Your task to perform on an android device: Search for Mexican restaurants on Maps Image 0: 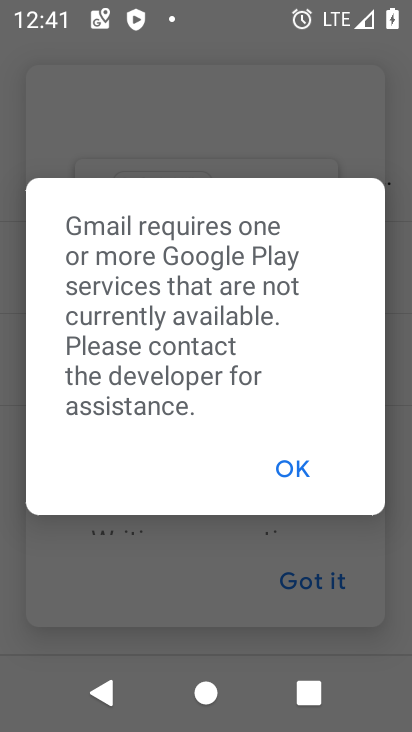
Step 0: press home button
Your task to perform on an android device: Search for Mexican restaurants on Maps Image 1: 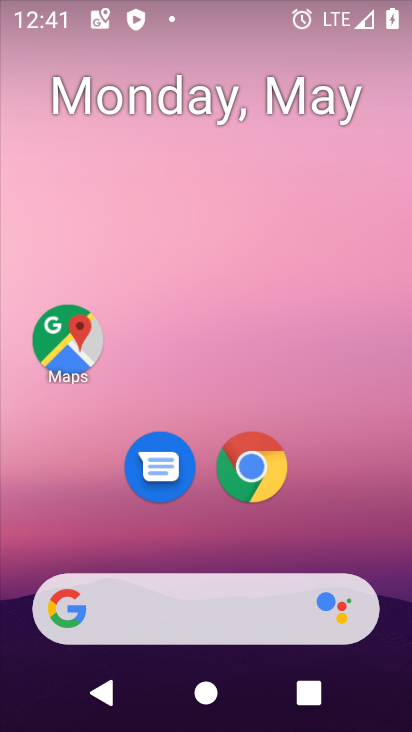
Step 1: click (66, 346)
Your task to perform on an android device: Search for Mexican restaurants on Maps Image 2: 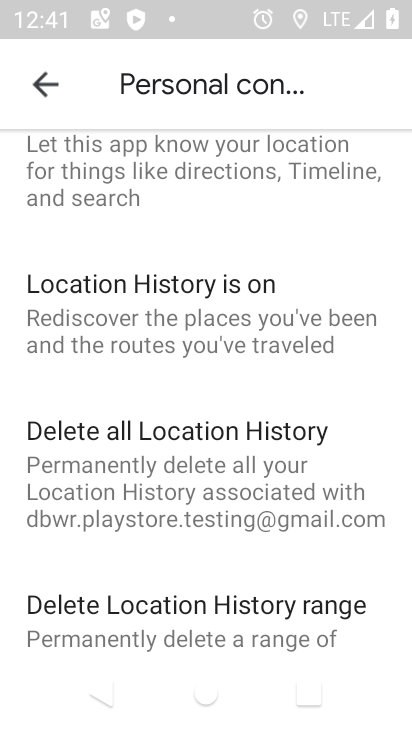
Step 2: click (37, 86)
Your task to perform on an android device: Search for Mexican restaurants on Maps Image 3: 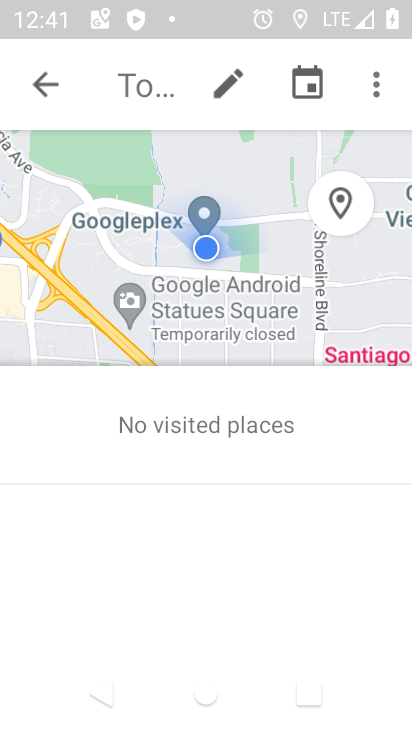
Step 3: click (62, 83)
Your task to perform on an android device: Search for Mexican restaurants on Maps Image 4: 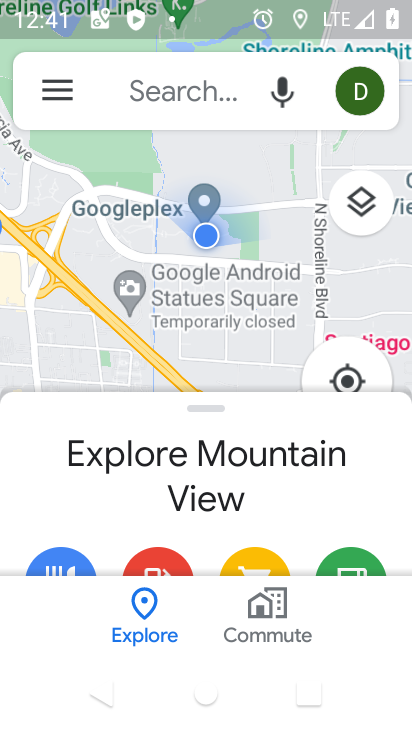
Step 4: click (134, 84)
Your task to perform on an android device: Search for Mexican restaurants on Maps Image 5: 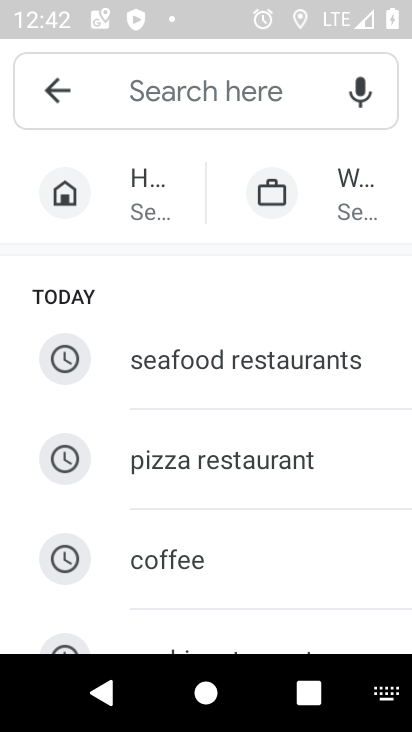
Step 5: type "mexican restaurant "
Your task to perform on an android device: Search for Mexican restaurants on Maps Image 6: 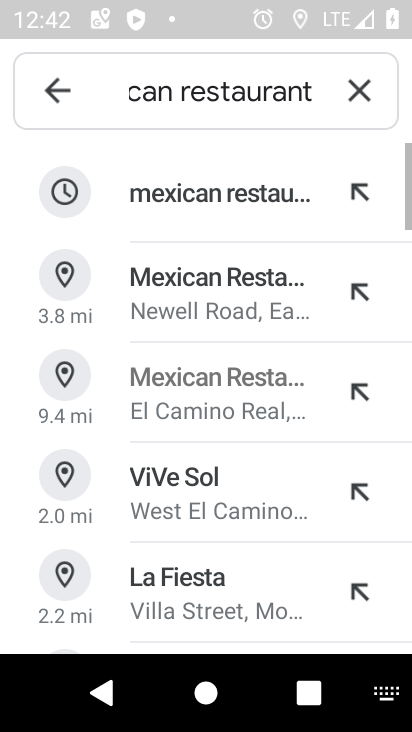
Step 6: click (166, 198)
Your task to perform on an android device: Search for Mexican restaurants on Maps Image 7: 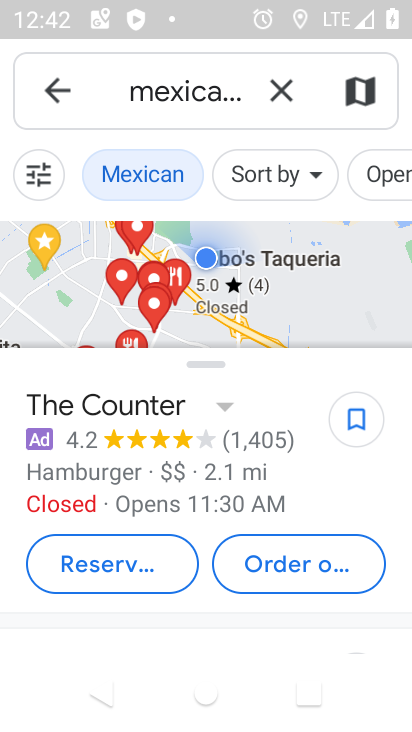
Step 7: task complete